Your task to perform on an android device: Is it going to rain this weekend? Image 0: 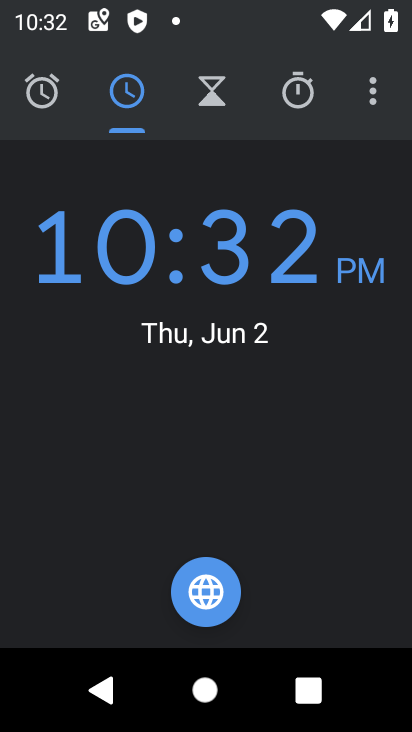
Step 0: press home button
Your task to perform on an android device: Is it going to rain this weekend? Image 1: 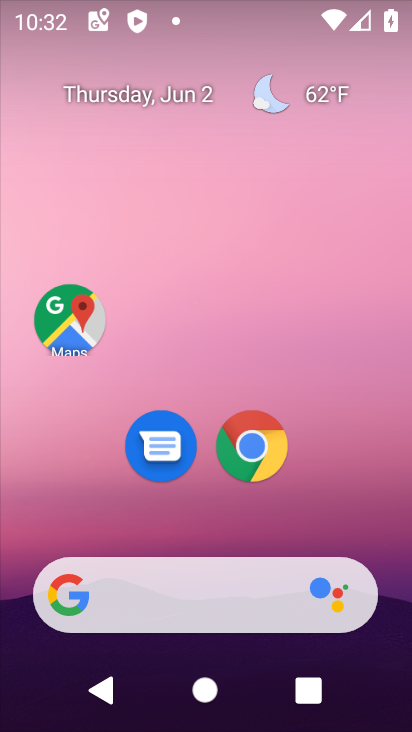
Step 1: click (334, 94)
Your task to perform on an android device: Is it going to rain this weekend? Image 2: 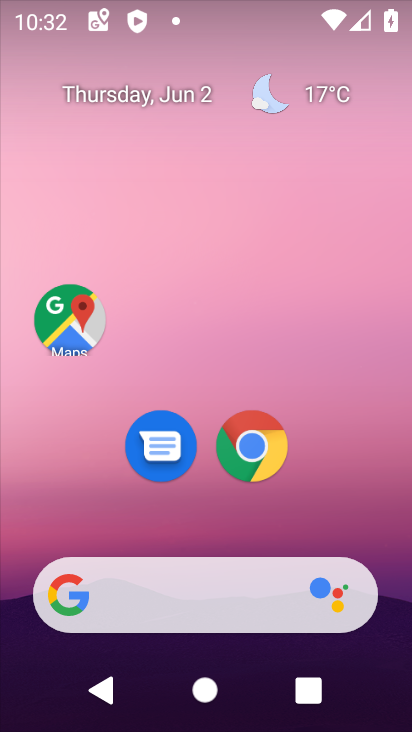
Step 2: click (327, 96)
Your task to perform on an android device: Is it going to rain this weekend? Image 3: 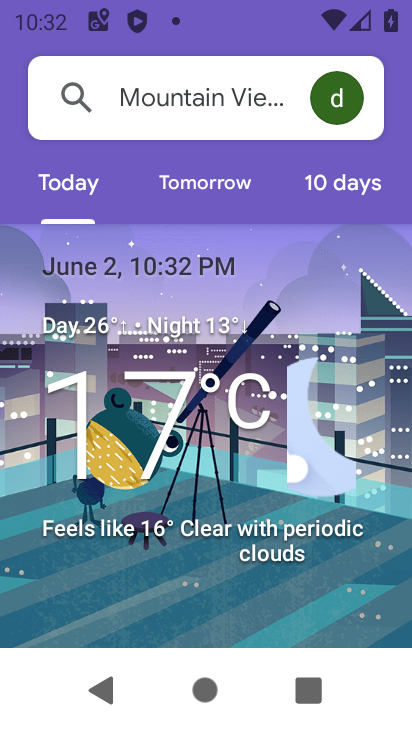
Step 3: click (344, 182)
Your task to perform on an android device: Is it going to rain this weekend? Image 4: 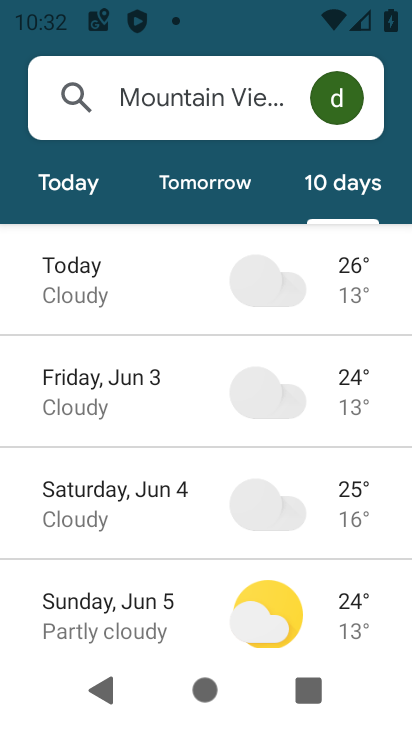
Step 4: task complete